Your task to perform on an android device: Open Google Chrome Image 0: 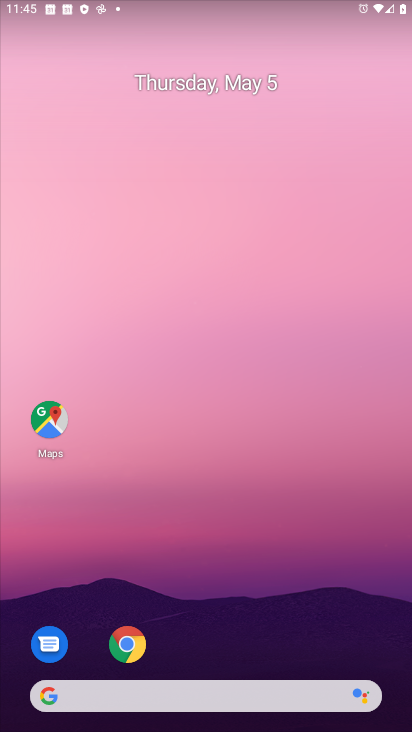
Step 0: drag from (175, 661) to (210, 162)
Your task to perform on an android device: Open Google Chrome Image 1: 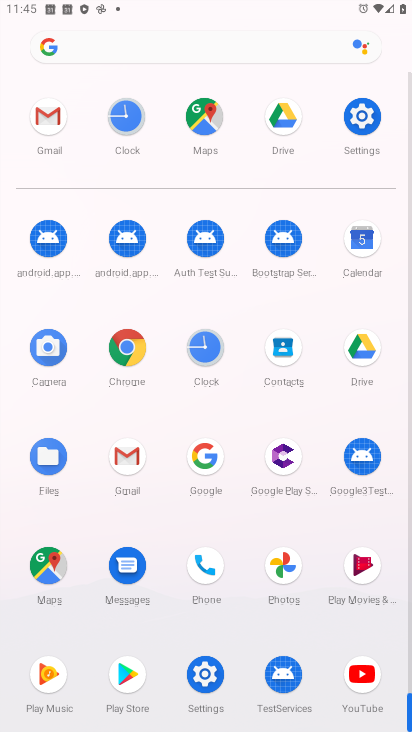
Step 1: click (133, 347)
Your task to perform on an android device: Open Google Chrome Image 2: 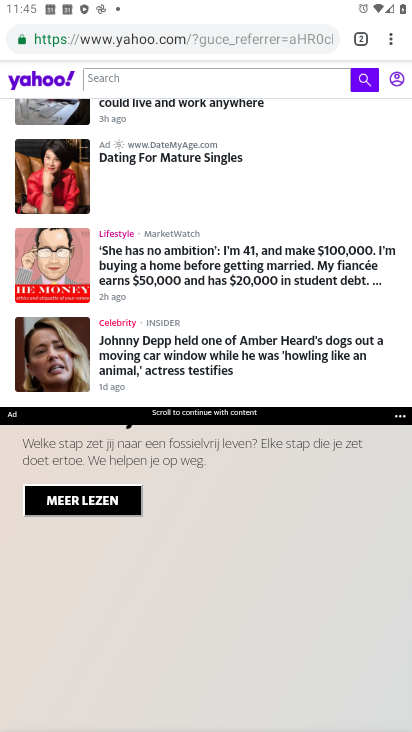
Step 2: task complete